Your task to perform on an android device: Go to Google maps Image 0: 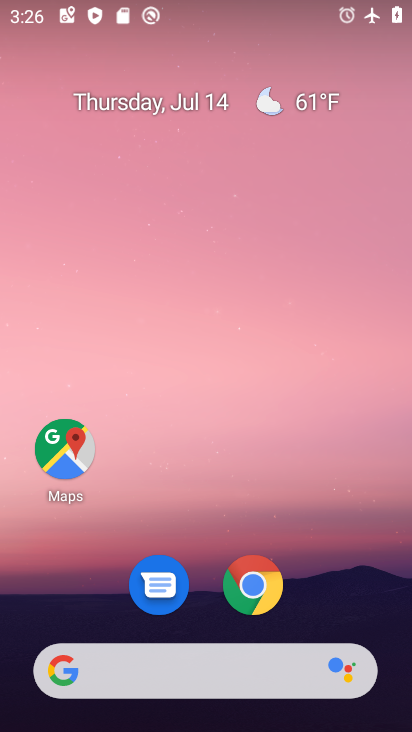
Step 0: click (71, 452)
Your task to perform on an android device: Go to Google maps Image 1: 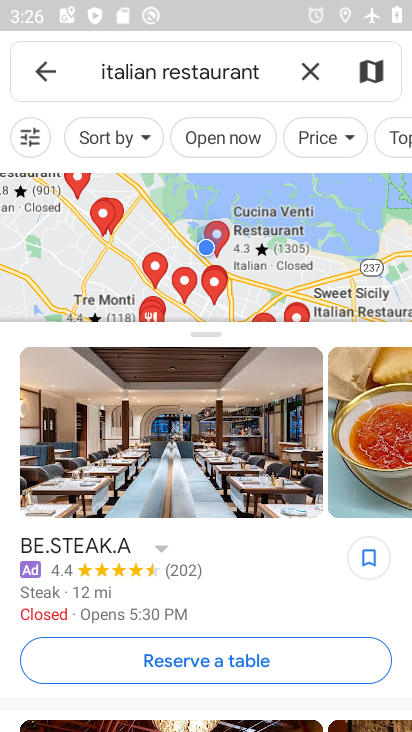
Step 1: click (311, 65)
Your task to perform on an android device: Go to Google maps Image 2: 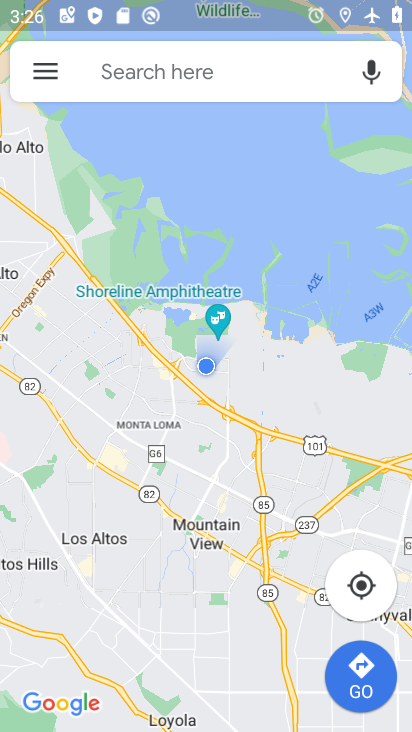
Step 2: task complete